Your task to perform on an android device: turn off translation in the chrome app Image 0: 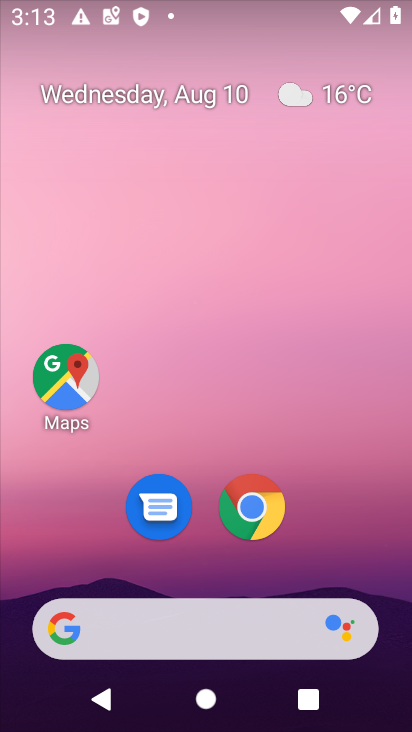
Step 0: drag from (360, 542) to (382, 0)
Your task to perform on an android device: turn off translation in the chrome app Image 1: 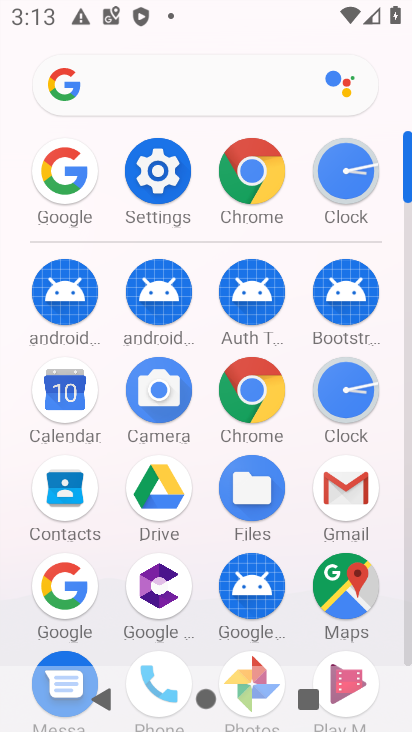
Step 1: click (253, 390)
Your task to perform on an android device: turn off translation in the chrome app Image 2: 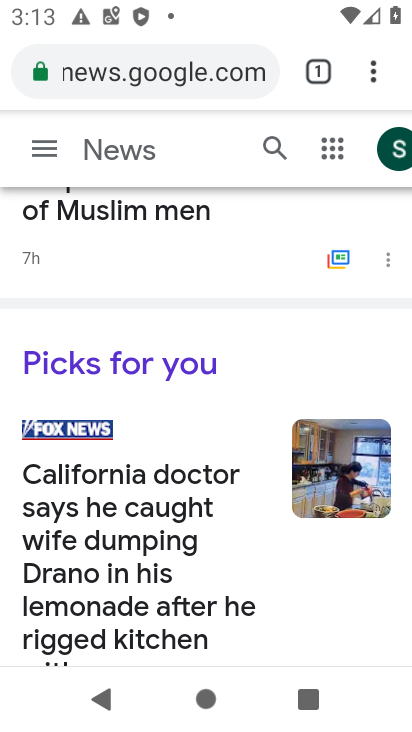
Step 2: drag from (375, 60) to (163, 503)
Your task to perform on an android device: turn off translation in the chrome app Image 3: 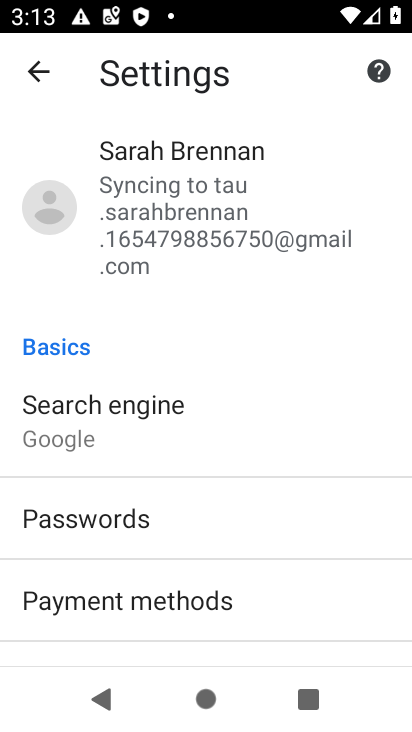
Step 3: drag from (318, 537) to (344, 104)
Your task to perform on an android device: turn off translation in the chrome app Image 4: 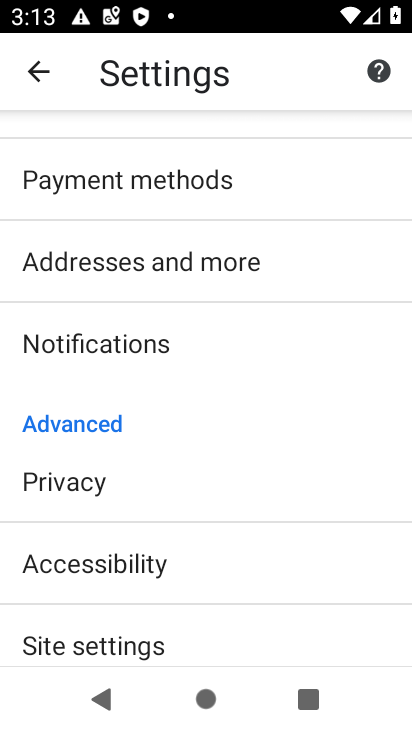
Step 4: drag from (299, 562) to (366, 160)
Your task to perform on an android device: turn off translation in the chrome app Image 5: 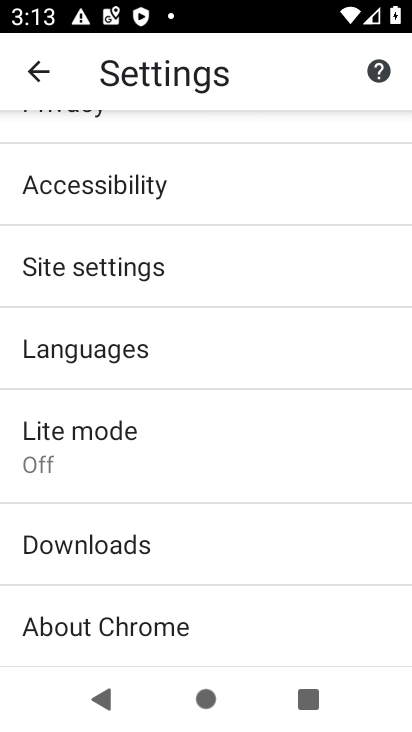
Step 5: click (122, 349)
Your task to perform on an android device: turn off translation in the chrome app Image 6: 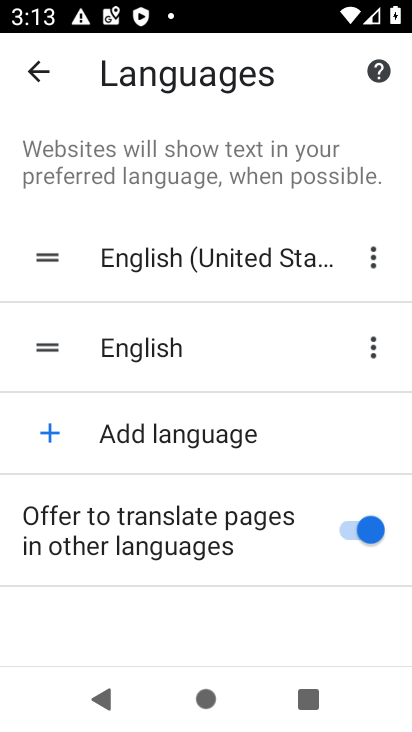
Step 6: click (361, 528)
Your task to perform on an android device: turn off translation in the chrome app Image 7: 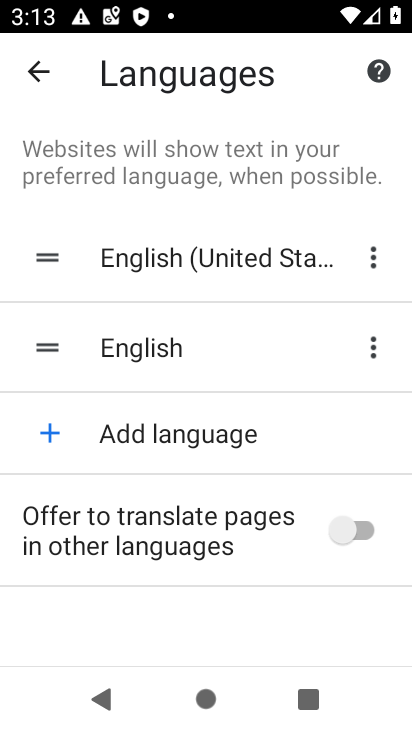
Step 7: task complete